Your task to perform on an android device: Open eBay Image 0: 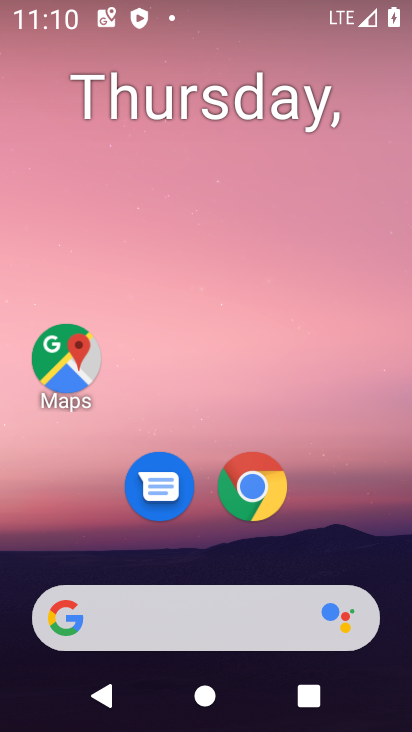
Step 0: click (267, 472)
Your task to perform on an android device: Open eBay Image 1: 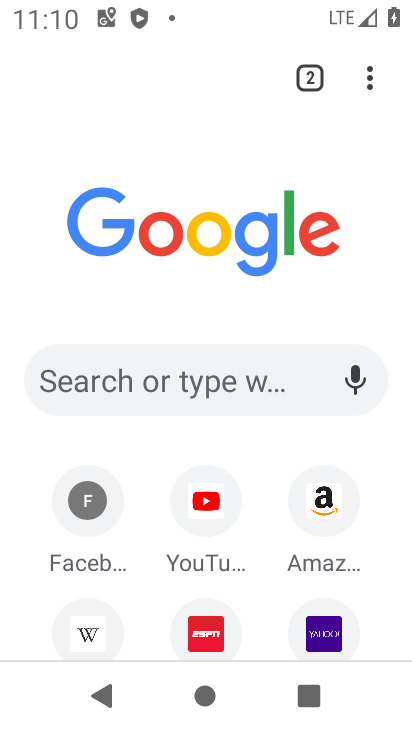
Step 1: click (151, 389)
Your task to perform on an android device: Open eBay Image 2: 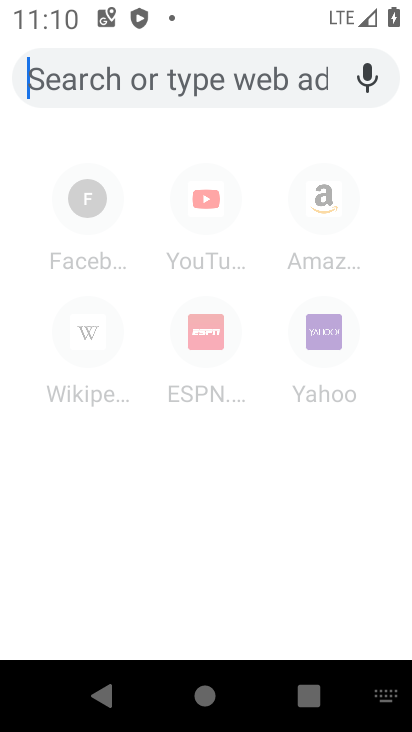
Step 2: type "ebay"
Your task to perform on an android device: Open eBay Image 3: 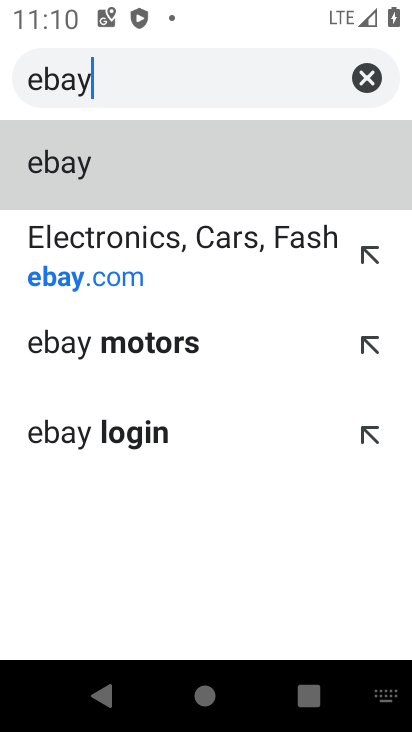
Step 3: click (109, 275)
Your task to perform on an android device: Open eBay Image 4: 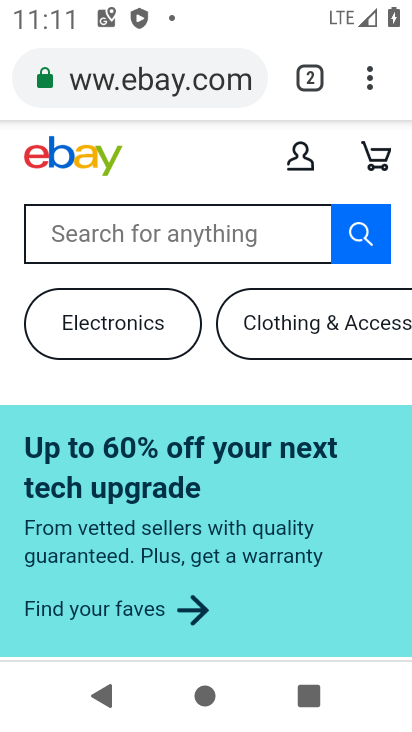
Step 4: task complete